Your task to perform on an android device: Open settings on Google Maps Image 0: 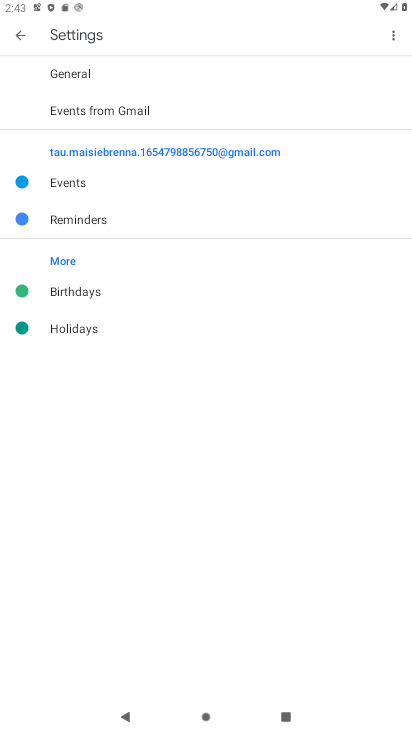
Step 0: press home button
Your task to perform on an android device: Open settings on Google Maps Image 1: 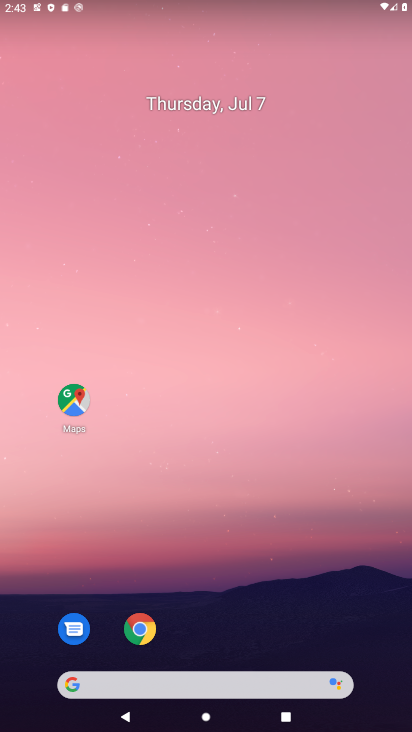
Step 1: click (70, 402)
Your task to perform on an android device: Open settings on Google Maps Image 2: 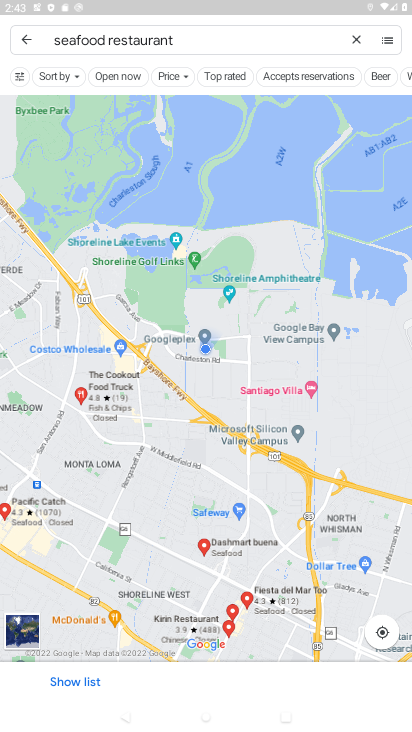
Step 2: task complete